Your task to perform on an android device: Set the phone to "Do not disturb". Image 0: 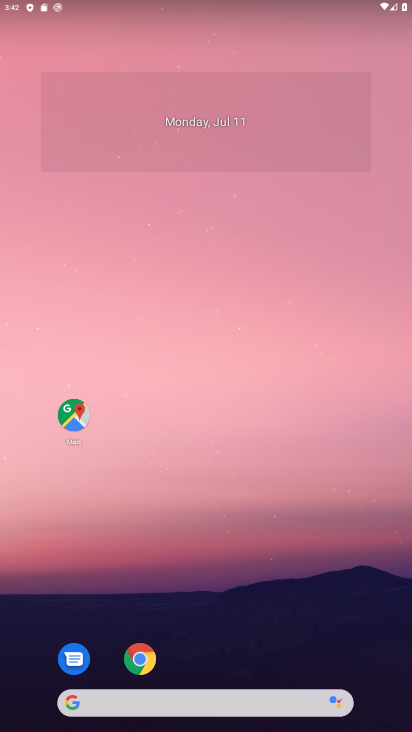
Step 0: drag from (225, 672) to (229, 151)
Your task to perform on an android device: Set the phone to "Do not disturb". Image 1: 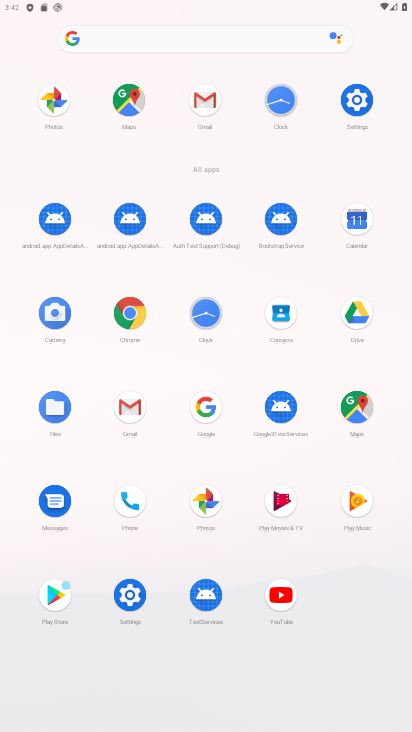
Step 1: drag from (134, 7) to (232, 659)
Your task to perform on an android device: Set the phone to "Do not disturb". Image 2: 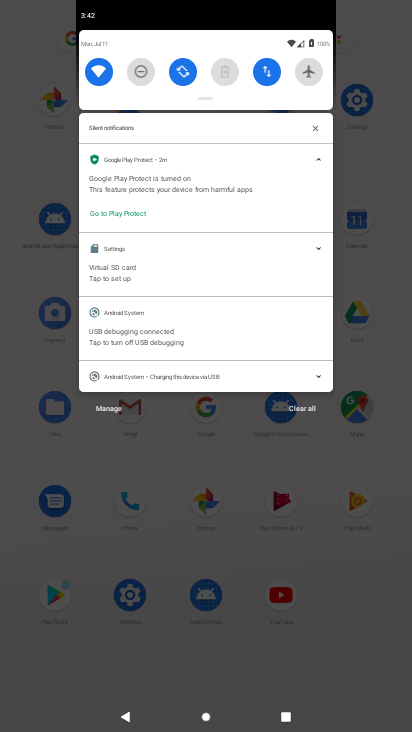
Step 2: click (130, 76)
Your task to perform on an android device: Set the phone to "Do not disturb". Image 3: 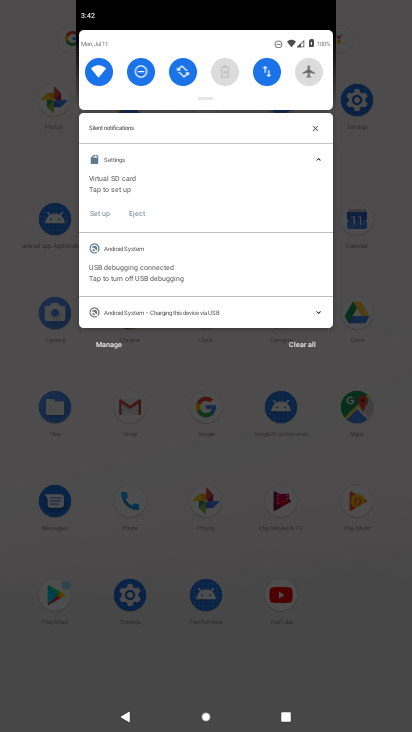
Step 3: task complete